Your task to perform on an android device: When is my next appointment? Image 0: 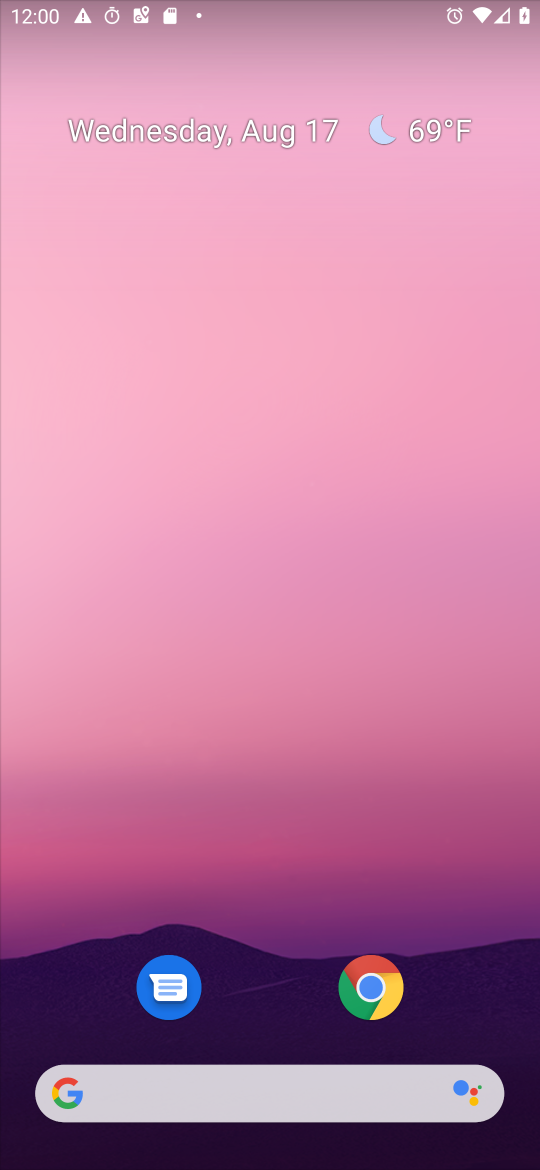
Step 0: click (29, 1142)
Your task to perform on an android device: When is my next appointment? Image 1: 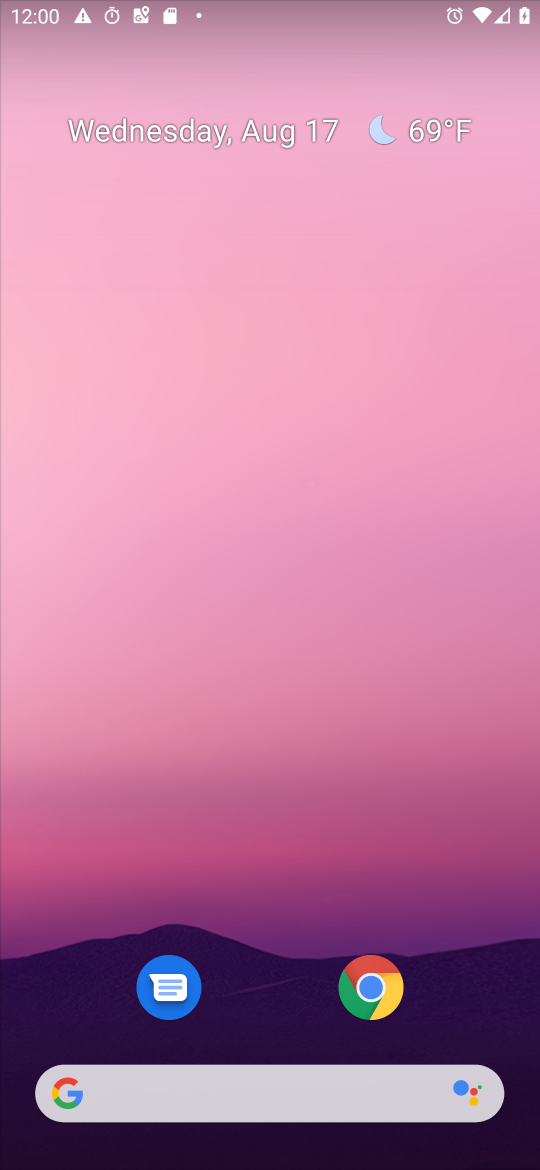
Step 1: drag from (29, 1142) to (227, 405)
Your task to perform on an android device: When is my next appointment? Image 2: 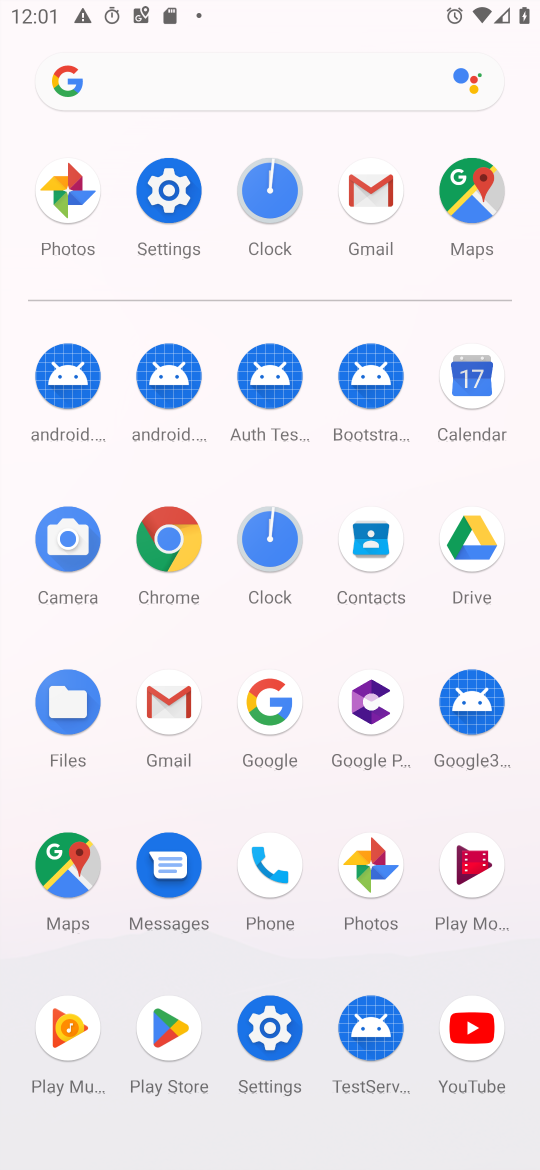
Step 2: click (486, 381)
Your task to perform on an android device: When is my next appointment? Image 3: 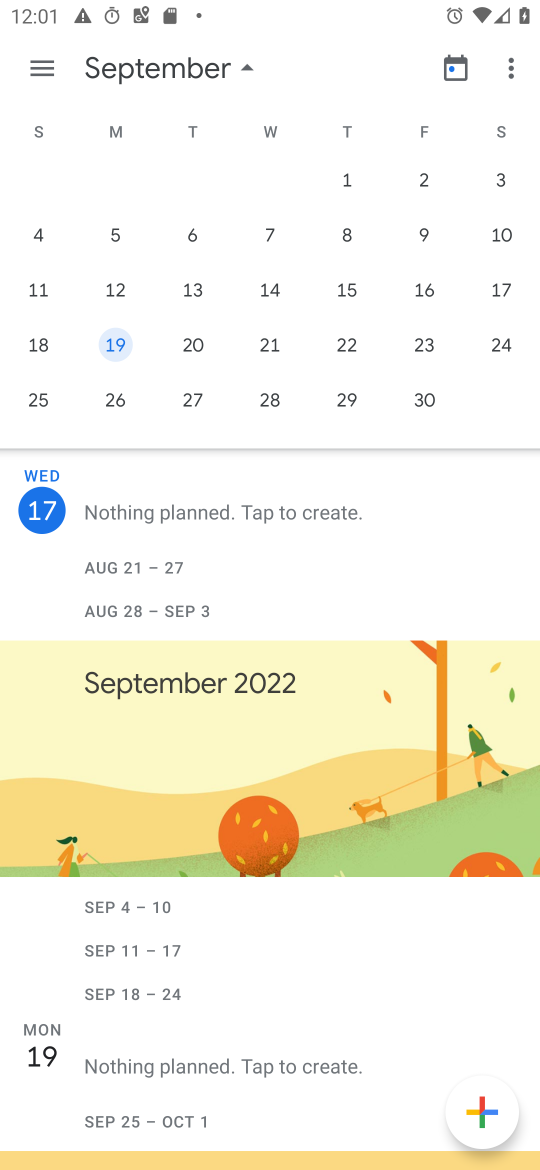
Step 3: drag from (14, 201) to (471, 205)
Your task to perform on an android device: When is my next appointment? Image 4: 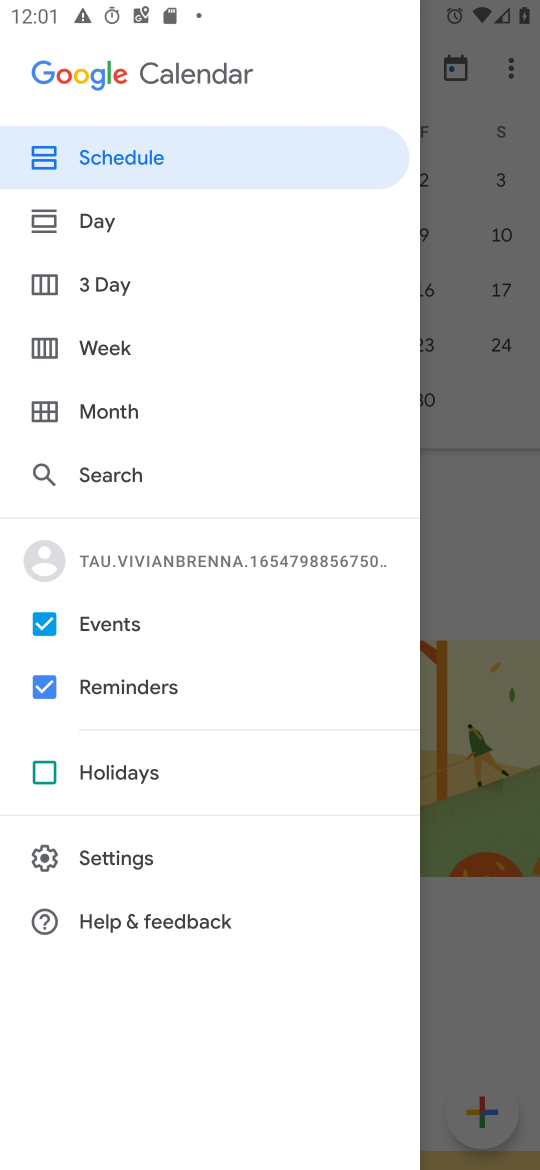
Step 4: click (486, 506)
Your task to perform on an android device: When is my next appointment? Image 5: 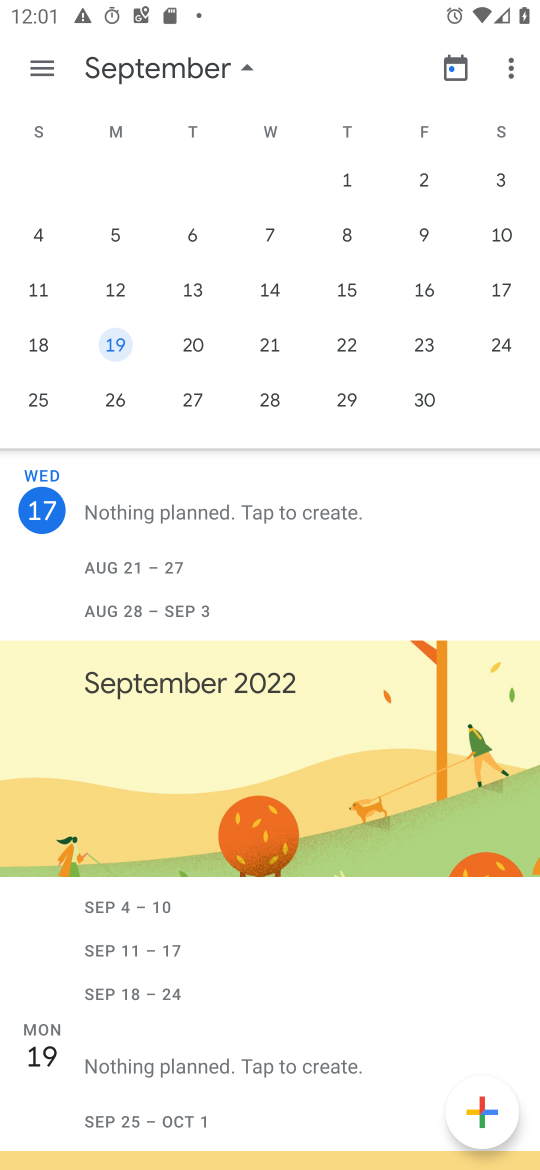
Step 5: task complete